Your task to perform on an android device: turn on sleep mode Image 0: 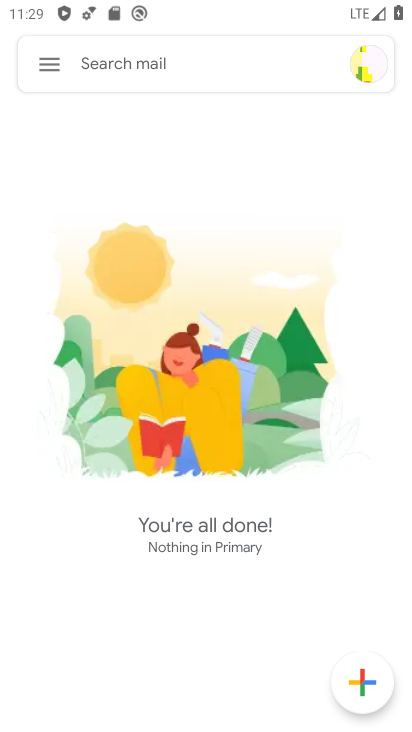
Step 0: press home button
Your task to perform on an android device: turn on sleep mode Image 1: 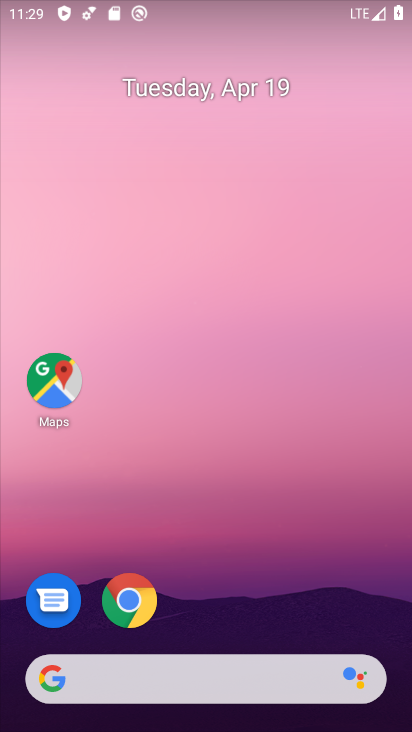
Step 1: drag from (342, 553) to (357, 15)
Your task to perform on an android device: turn on sleep mode Image 2: 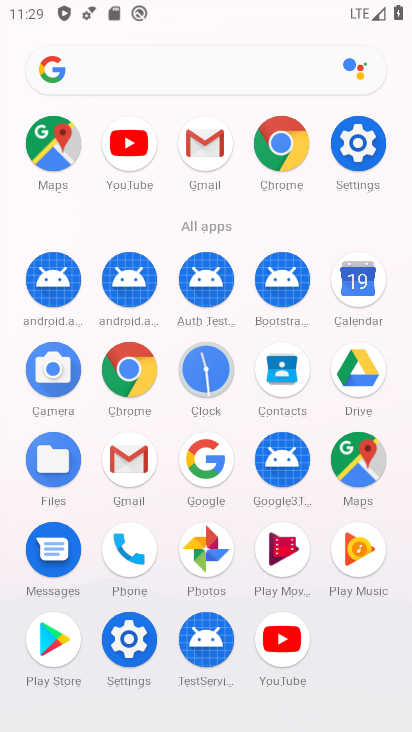
Step 2: click (363, 150)
Your task to perform on an android device: turn on sleep mode Image 3: 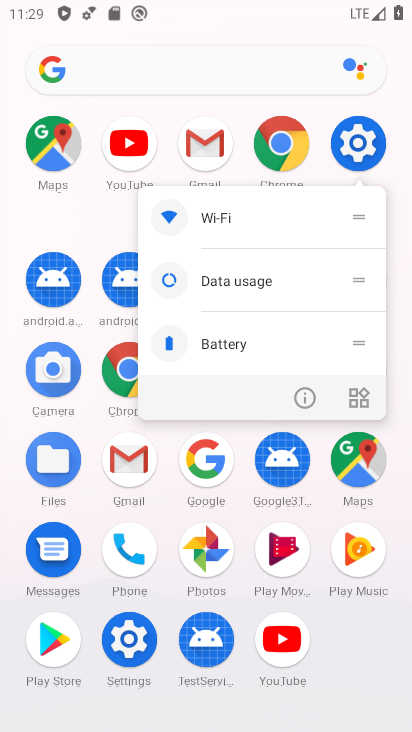
Step 3: click (352, 144)
Your task to perform on an android device: turn on sleep mode Image 4: 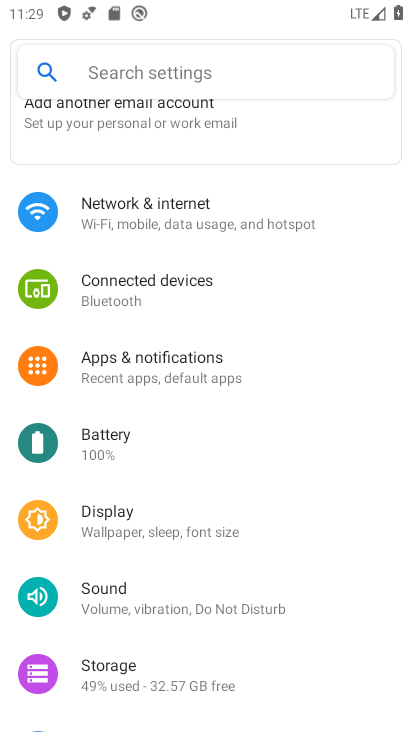
Step 4: click (111, 515)
Your task to perform on an android device: turn on sleep mode Image 5: 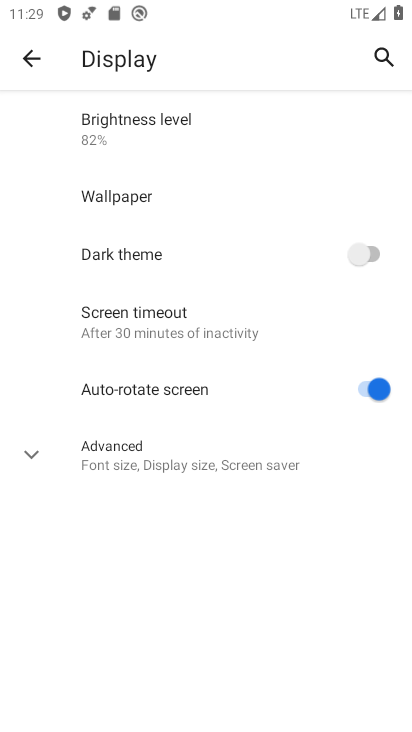
Step 5: click (34, 455)
Your task to perform on an android device: turn on sleep mode Image 6: 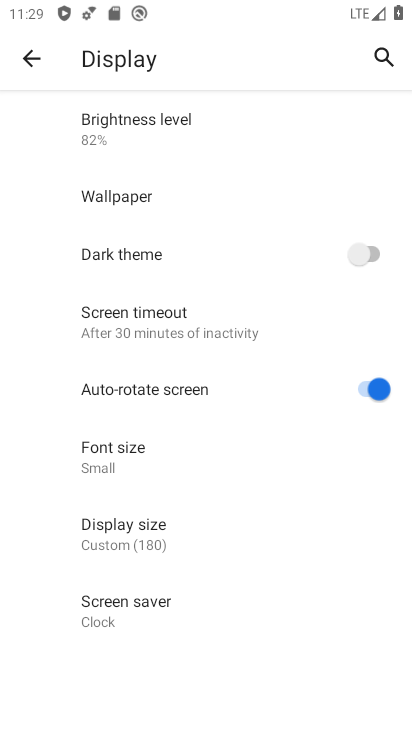
Step 6: task complete